Your task to perform on an android device: toggle data saver in the chrome app Image 0: 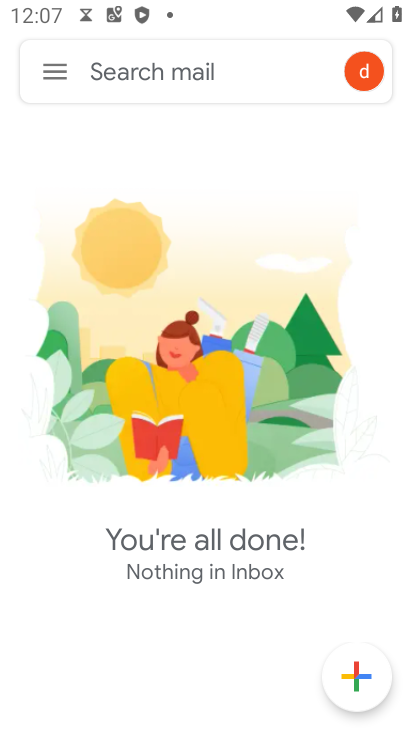
Step 0: press home button
Your task to perform on an android device: toggle data saver in the chrome app Image 1: 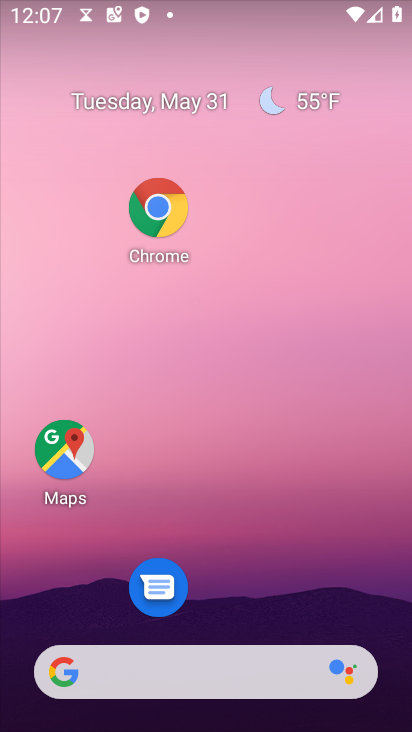
Step 1: click (147, 238)
Your task to perform on an android device: toggle data saver in the chrome app Image 2: 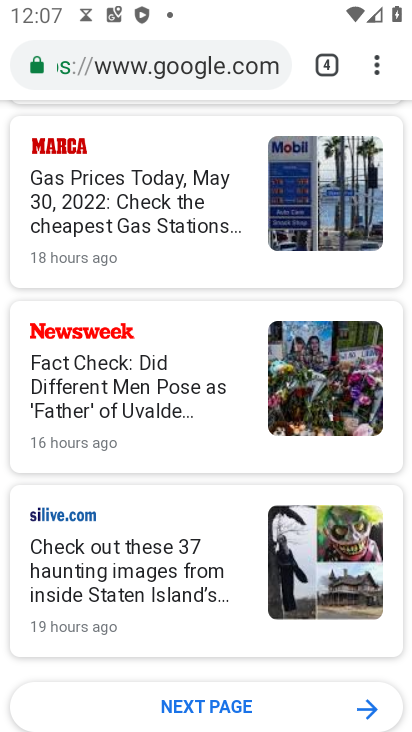
Step 2: click (378, 60)
Your task to perform on an android device: toggle data saver in the chrome app Image 3: 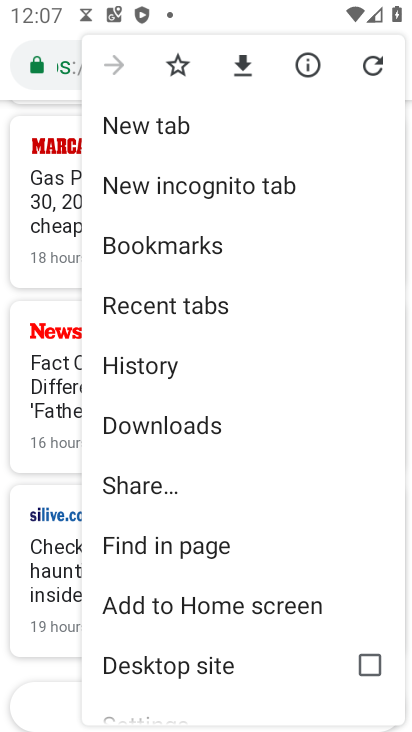
Step 3: drag from (190, 591) to (220, 346)
Your task to perform on an android device: toggle data saver in the chrome app Image 4: 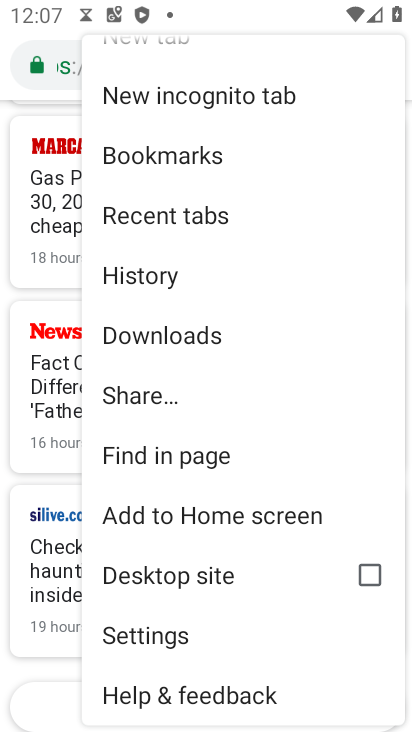
Step 4: click (158, 635)
Your task to perform on an android device: toggle data saver in the chrome app Image 5: 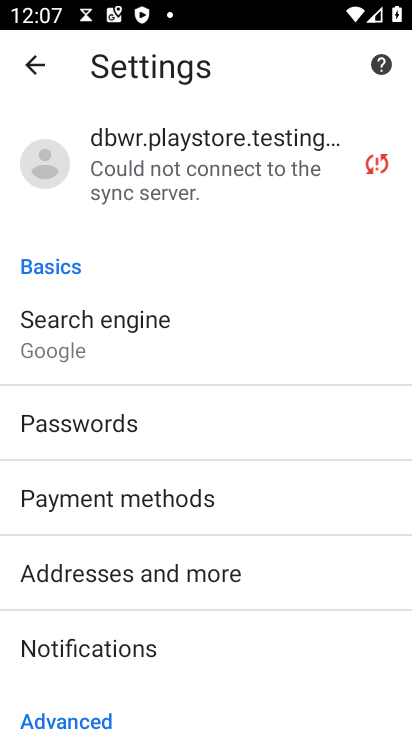
Step 5: drag from (184, 688) to (200, 286)
Your task to perform on an android device: toggle data saver in the chrome app Image 6: 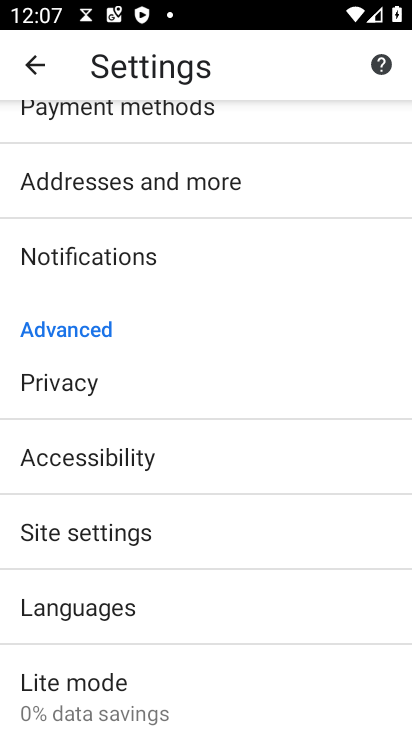
Step 6: click (89, 682)
Your task to perform on an android device: toggle data saver in the chrome app Image 7: 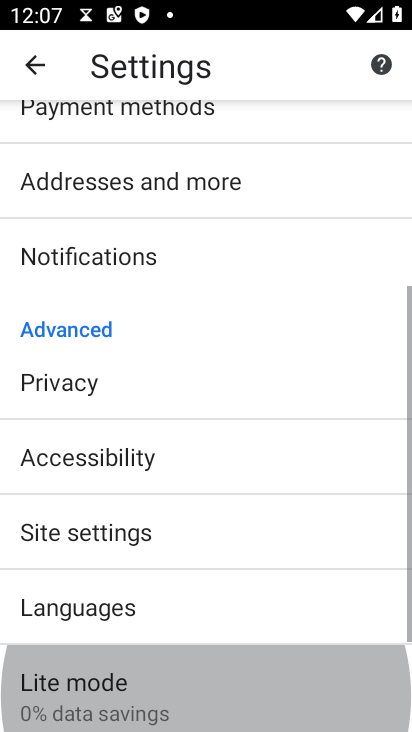
Step 7: click (89, 682)
Your task to perform on an android device: toggle data saver in the chrome app Image 8: 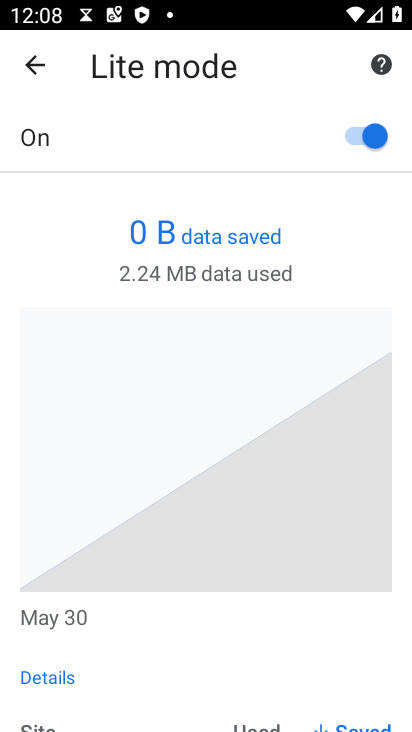
Step 8: click (363, 133)
Your task to perform on an android device: toggle data saver in the chrome app Image 9: 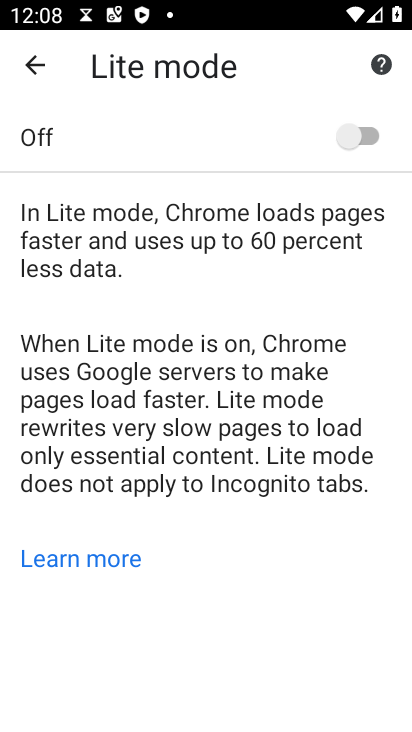
Step 9: task complete